Your task to perform on an android device: Add razer nari to the cart on bestbuy.com, then select checkout. Image 0: 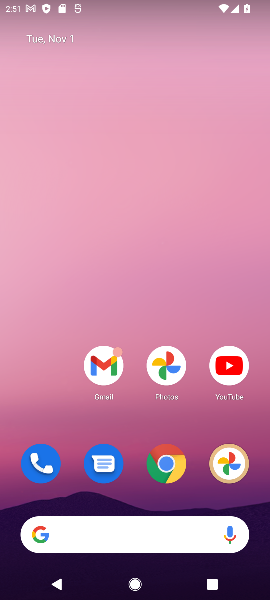
Step 0: drag from (139, 418) to (110, 53)
Your task to perform on an android device: Add razer nari to the cart on bestbuy.com, then select checkout. Image 1: 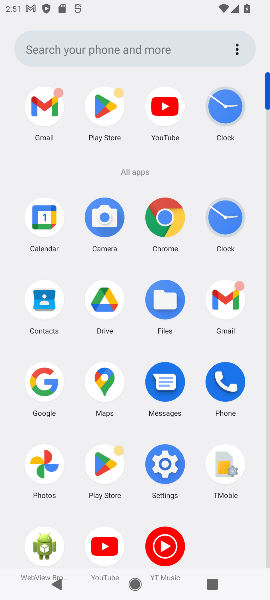
Step 1: click (167, 225)
Your task to perform on an android device: Add razer nari to the cart on bestbuy.com, then select checkout. Image 2: 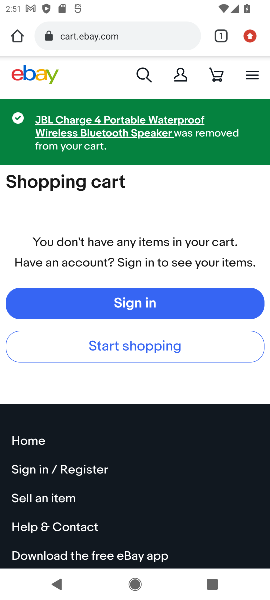
Step 2: click (117, 31)
Your task to perform on an android device: Add razer nari to the cart on bestbuy.com, then select checkout. Image 3: 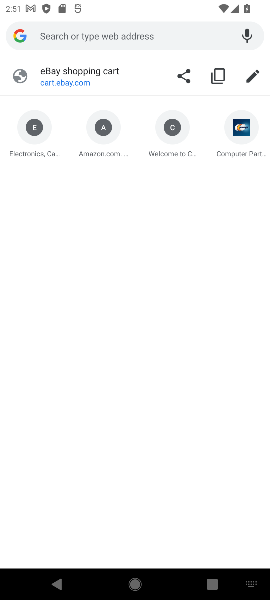
Step 3: type "bestbuy.com"
Your task to perform on an android device: Add razer nari to the cart on bestbuy.com, then select checkout. Image 4: 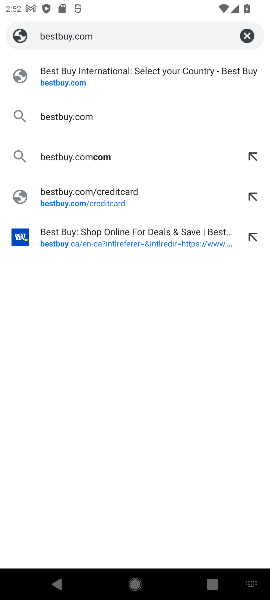
Step 4: press enter
Your task to perform on an android device: Add razer nari to the cart on bestbuy.com, then select checkout. Image 5: 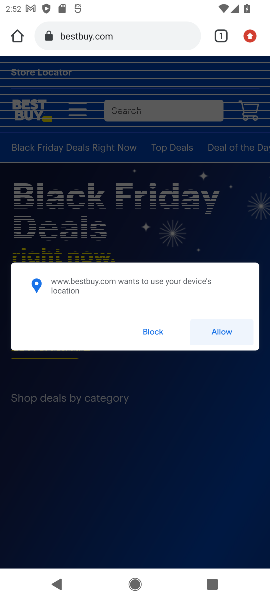
Step 5: click (145, 342)
Your task to perform on an android device: Add razer nari to the cart on bestbuy.com, then select checkout. Image 6: 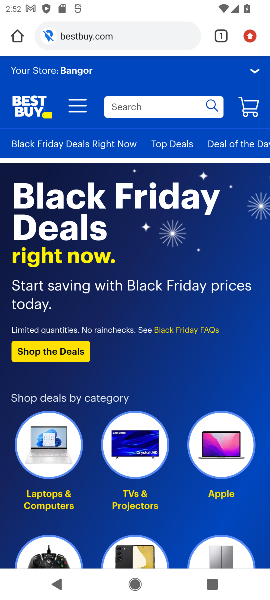
Step 6: click (168, 115)
Your task to perform on an android device: Add razer nari to the cart on bestbuy.com, then select checkout. Image 7: 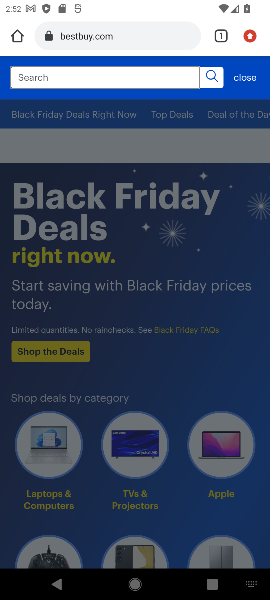
Step 7: type "razer nari"
Your task to perform on an android device: Add razer nari to the cart on bestbuy.com, then select checkout. Image 8: 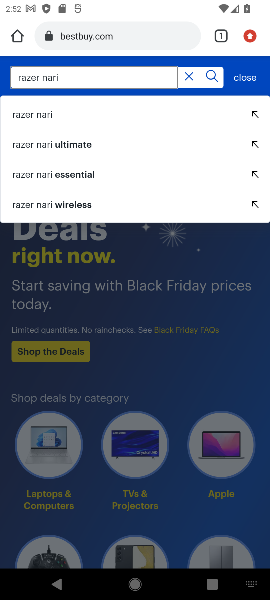
Step 8: press enter
Your task to perform on an android device: Add razer nari to the cart on bestbuy.com, then select checkout. Image 9: 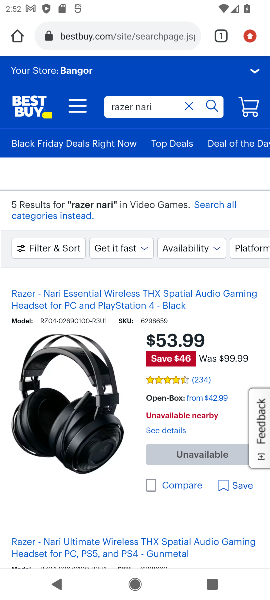
Step 9: task complete